Your task to perform on an android device: View the shopping cart on target.com. Add acer predator to the cart on target.com Image 0: 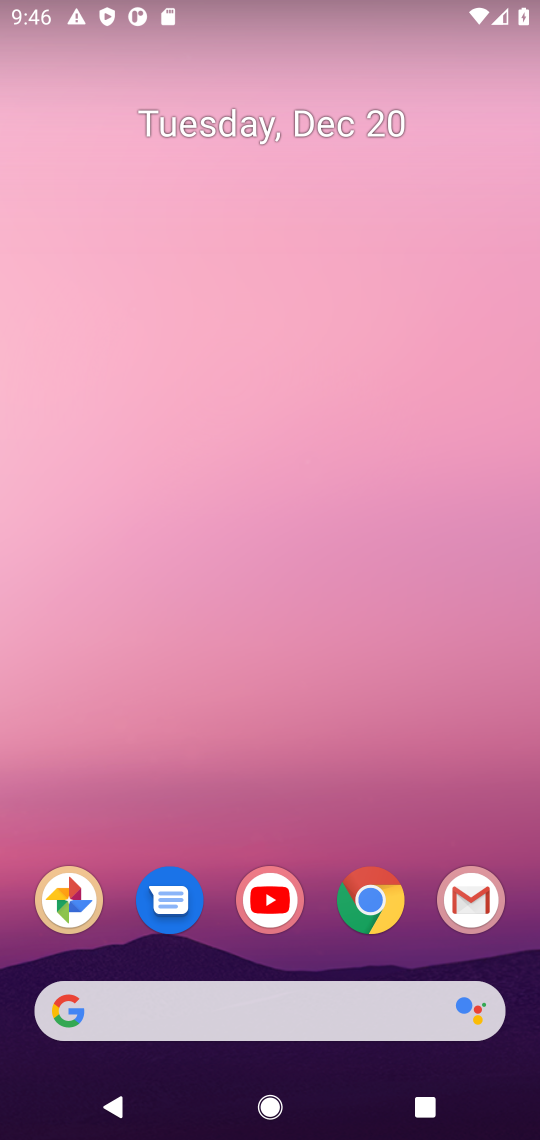
Step 0: click (373, 898)
Your task to perform on an android device: View the shopping cart on target.com. Add acer predator to the cart on target.com Image 1: 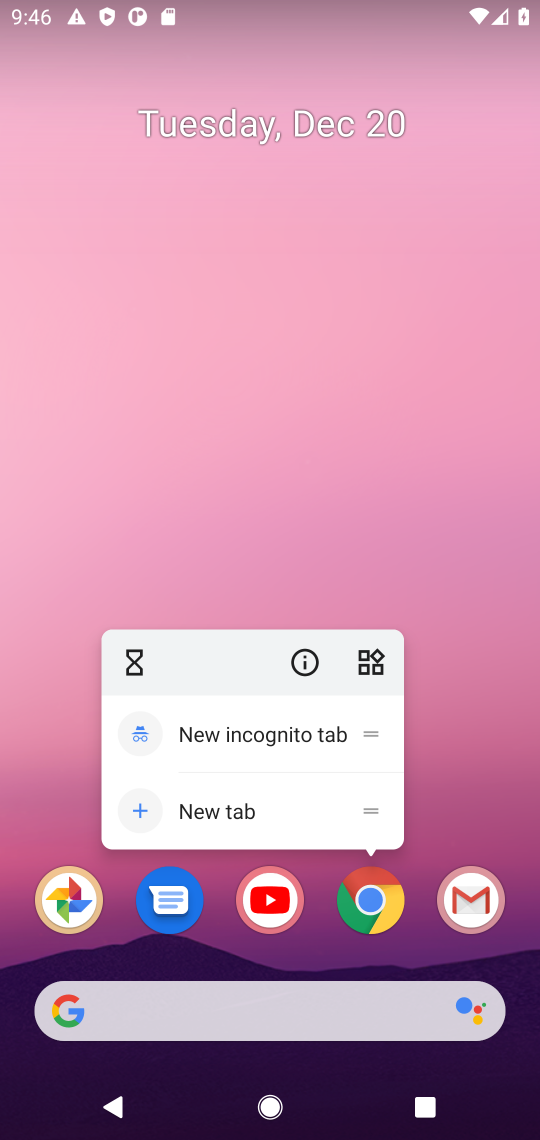
Step 1: click (373, 898)
Your task to perform on an android device: View the shopping cart on target.com. Add acer predator to the cart on target.com Image 2: 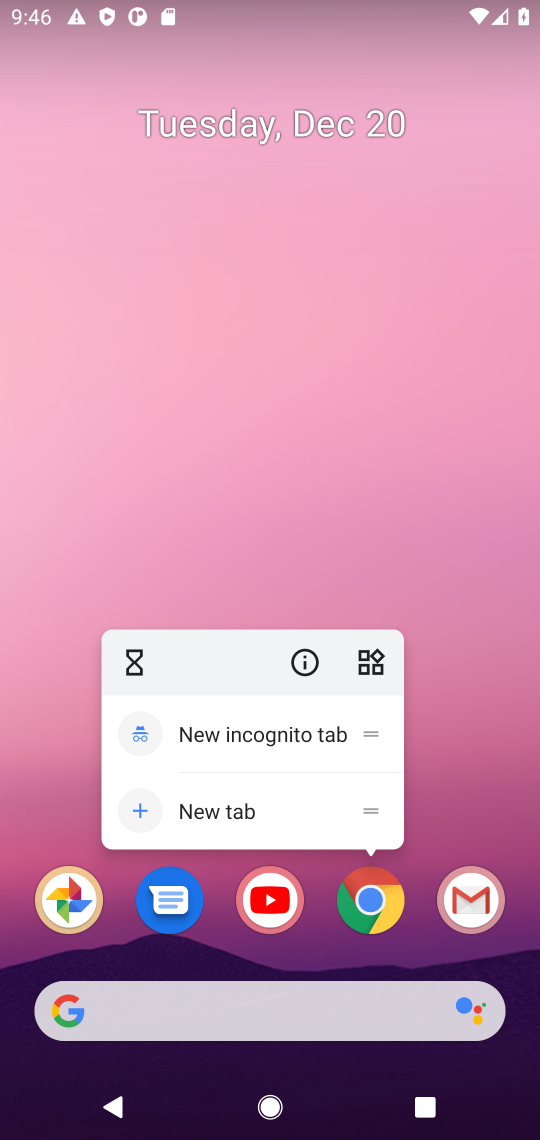
Step 2: click (373, 907)
Your task to perform on an android device: View the shopping cart on target.com. Add acer predator to the cart on target.com Image 3: 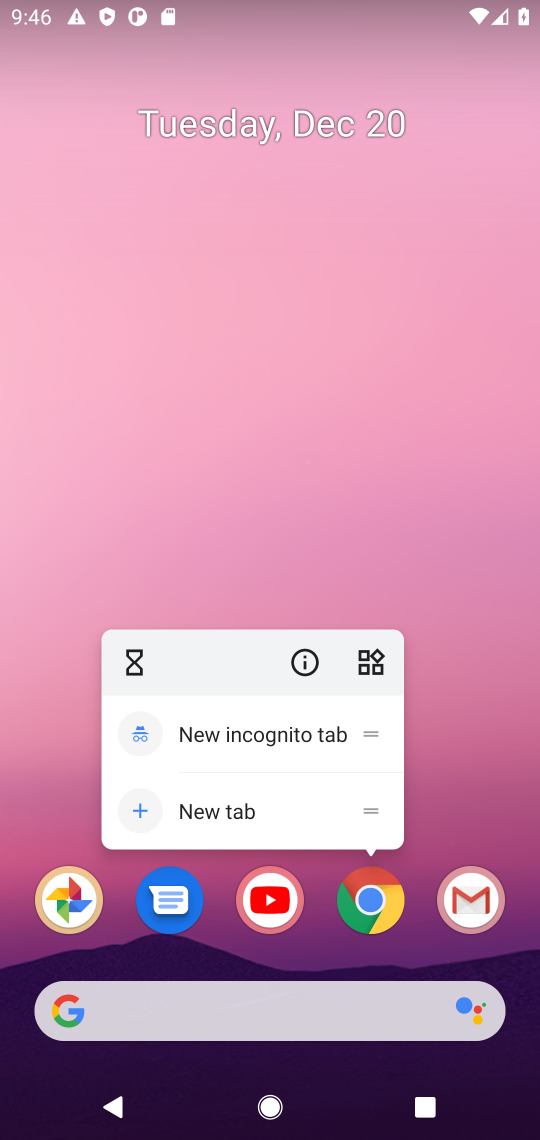
Step 3: click (373, 907)
Your task to perform on an android device: View the shopping cart on target.com. Add acer predator to the cart on target.com Image 4: 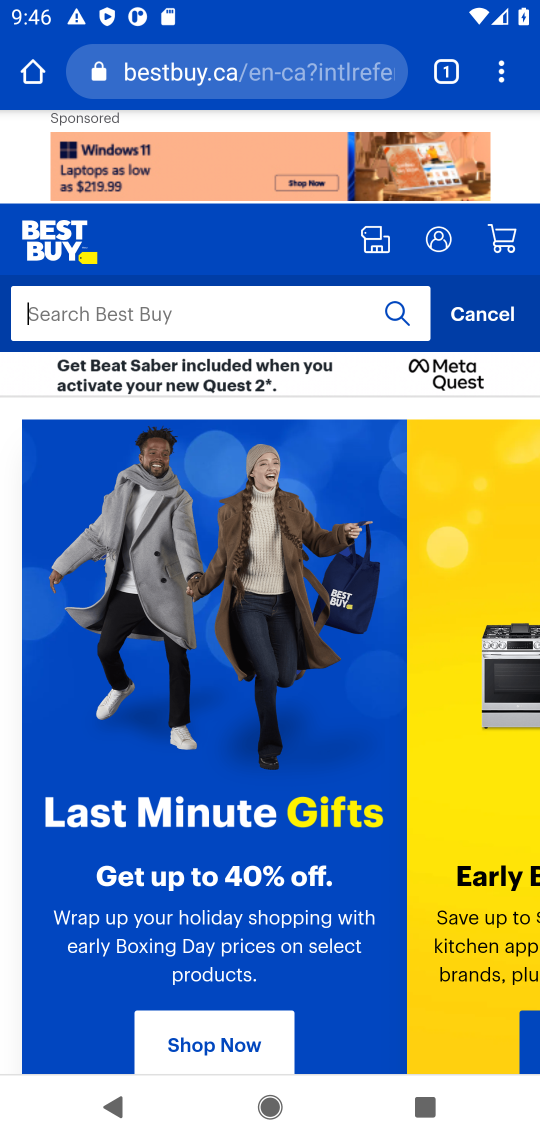
Step 4: click (235, 62)
Your task to perform on an android device: View the shopping cart on target.com. Add acer predator to the cart on target.com Image 5: 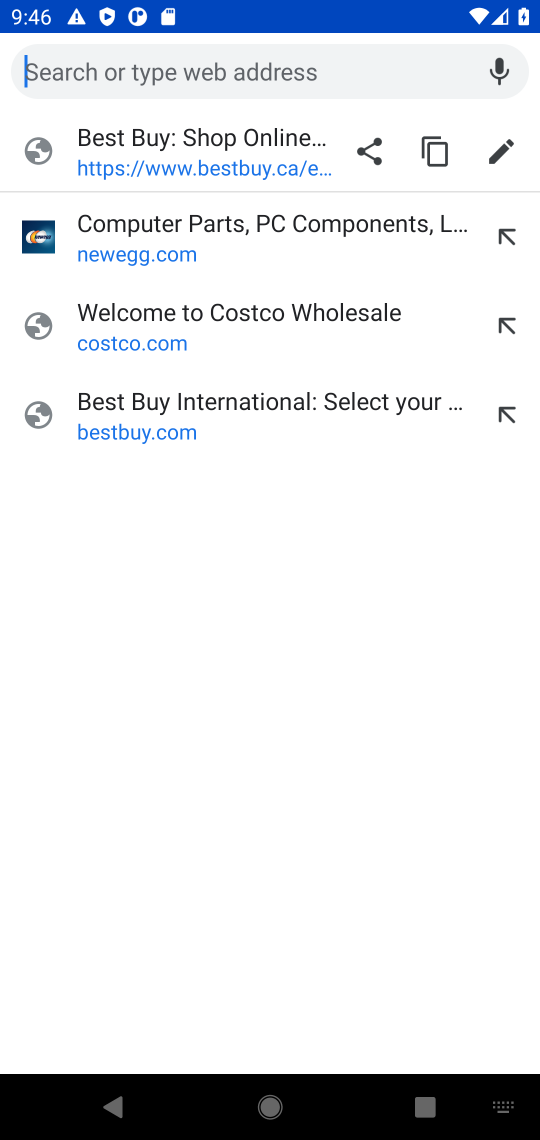
Step 5: type "target.com"
Your task to perform on an android device: View the shopping cart on target.com. Add acer predator to the cart on target.com Image 6: 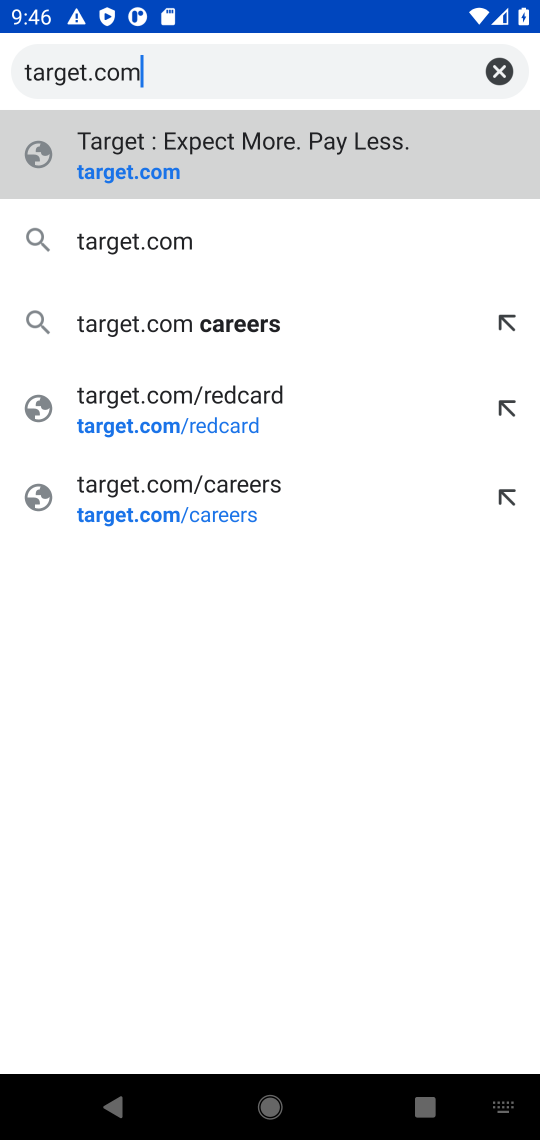
Step 6: click (141, 173)
Your task to perform on an android device: View the shopping cart on target.com. Add acer predator to the cart on target.com Image 7: 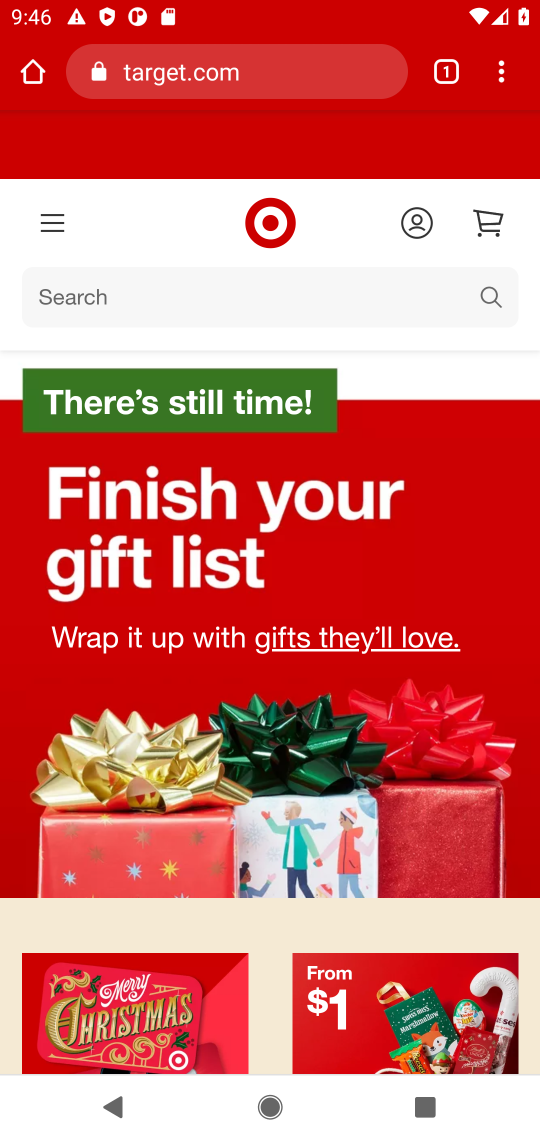
Step 7: click (483, 226)
Your task to perform on an android device: View the shopping cart on target.com. Add acer predator to the cart on target.com Image 8: 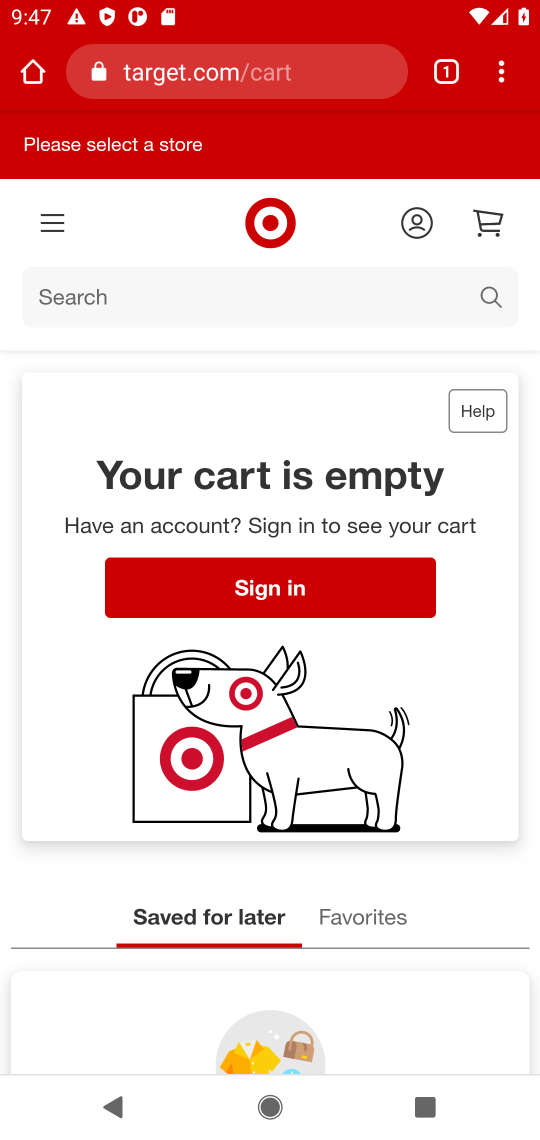
Step 8: click (79, 306)
Your task to perform on an android device: View the shopping cart on target.com. Add acer predator to the cart on target.com Image 9: 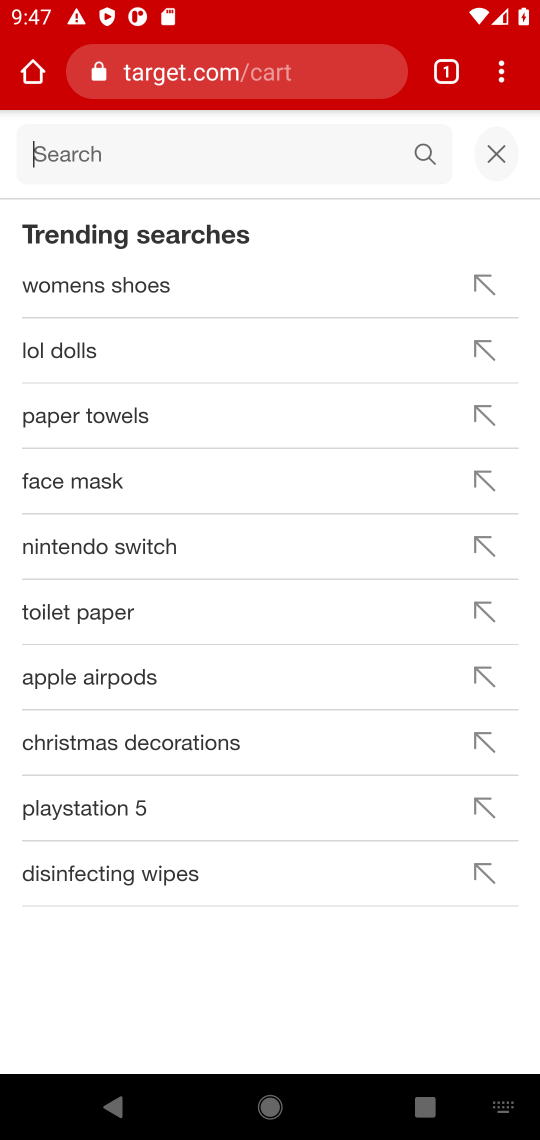
Step 9: type "acer predator"
Your task to perform on an android device: View the shopping cart on target.com. Add acer predator to the cart on target.com Image 10: 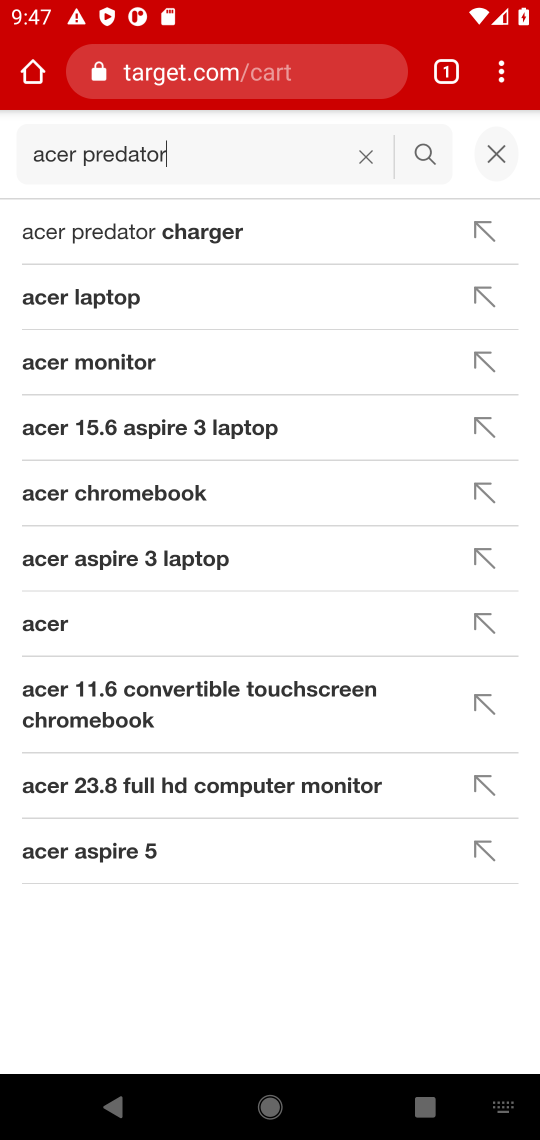
Step 10: click (418, 155)
Your task to perform on an android device: View the shopping cart on target.com. Add acer predator to the cart on target.com Image 11: 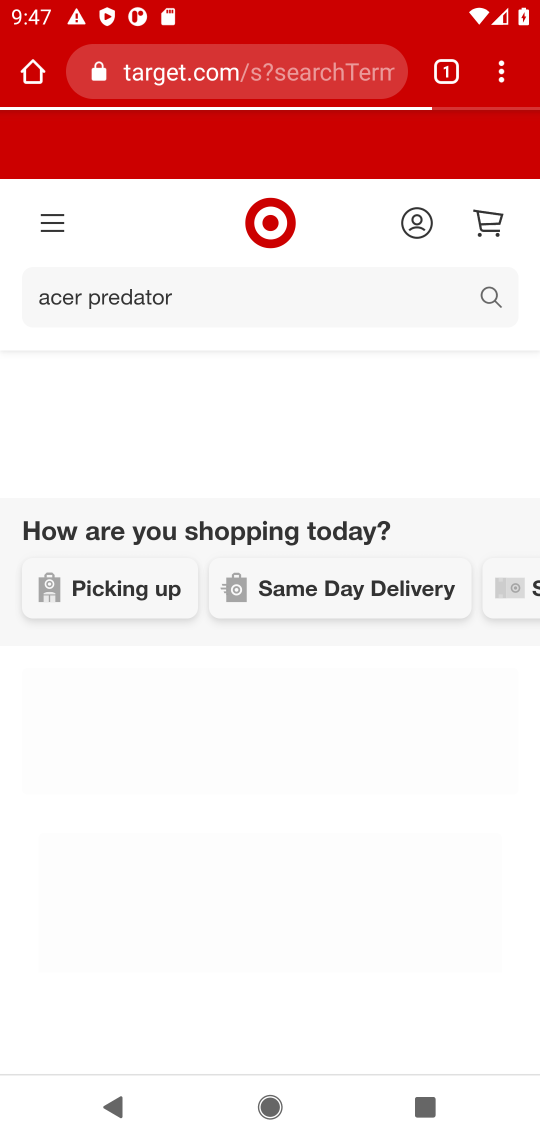
Step 11: drag from (223, 747) to (230, 431)
Your task to perform on an android device: View the shopping cart on target.com. Add acer predator to the cart on target.com Image 12: 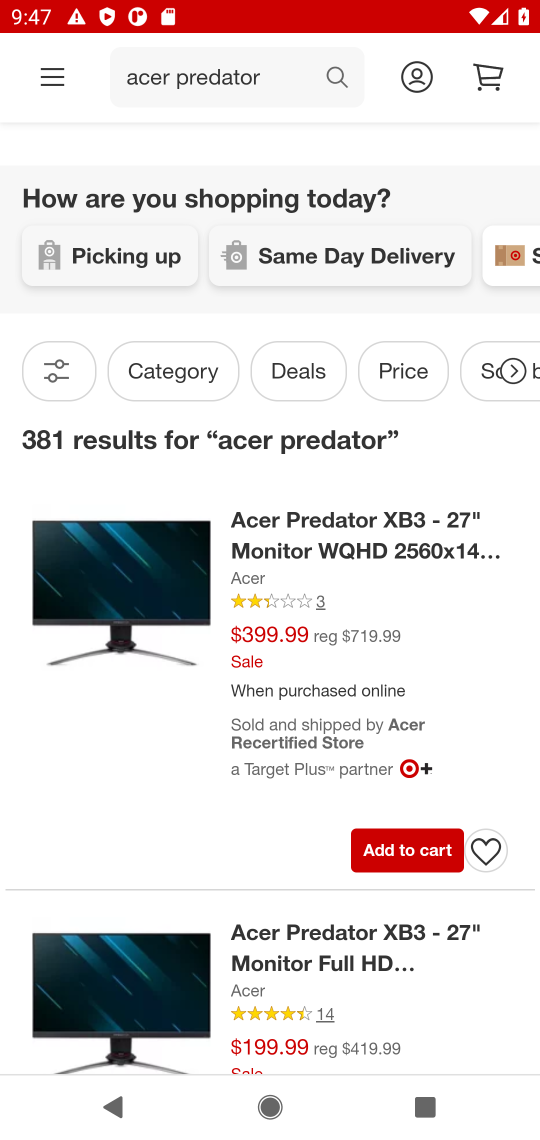
Step 12: click (294, 542)
Your task to perform on an android device: View the shopping cart on target.com. Add acer predator to the cart on target.com Image 13: 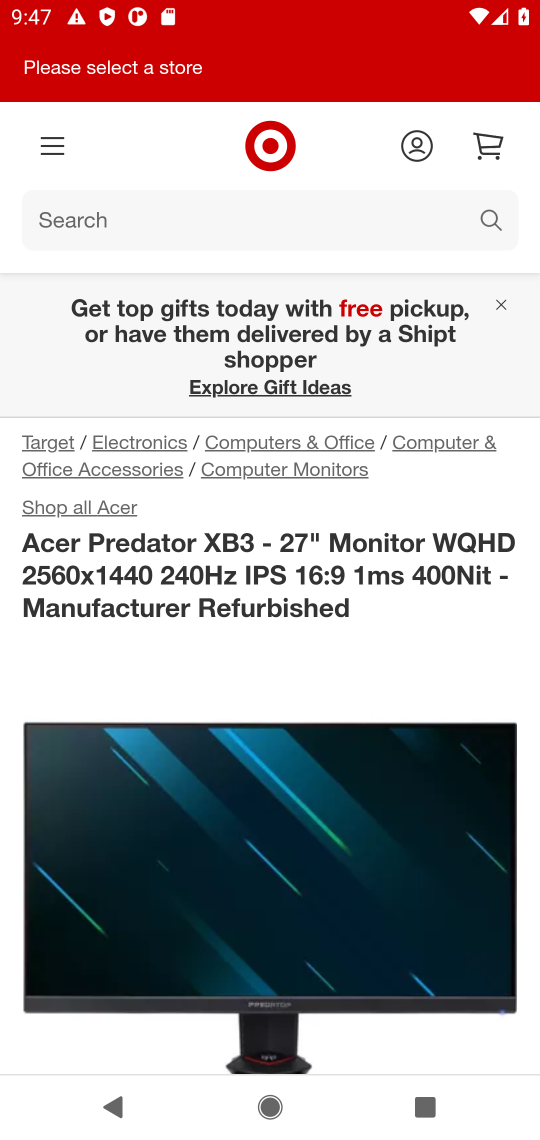
Step 13: drag from (313, 818) to (320, 360)
Your task to perform on an android device: View the shopping cart on target.com. Add acer predator to the cart on target.com Image 14: 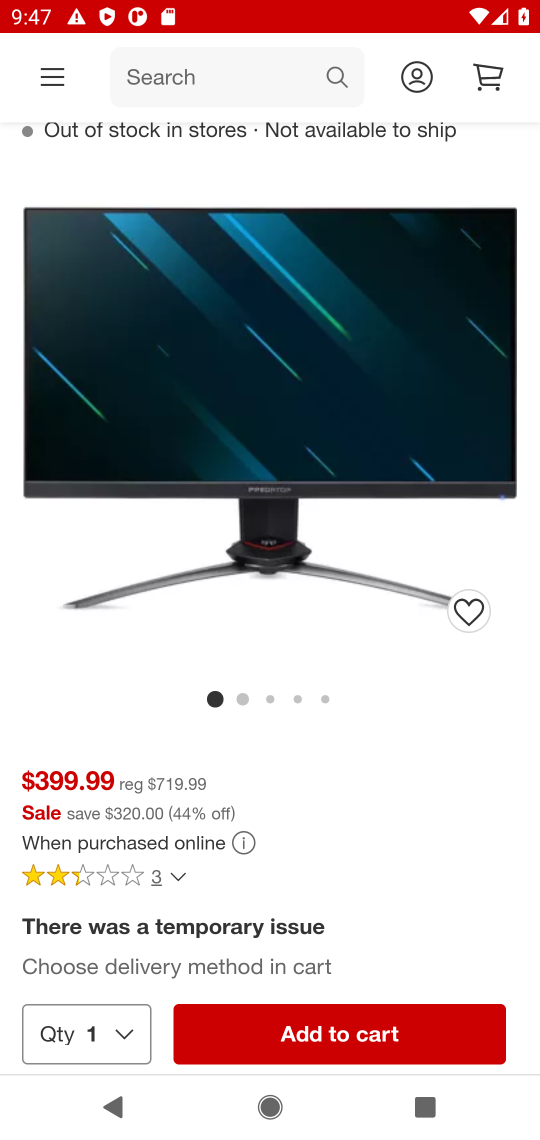
Step 14: drag from (296, 766) to (296, 376)
Your task to perform on an android device: View the shopping cart on target.com. Add acer predator to the cart on target.com Image 15: 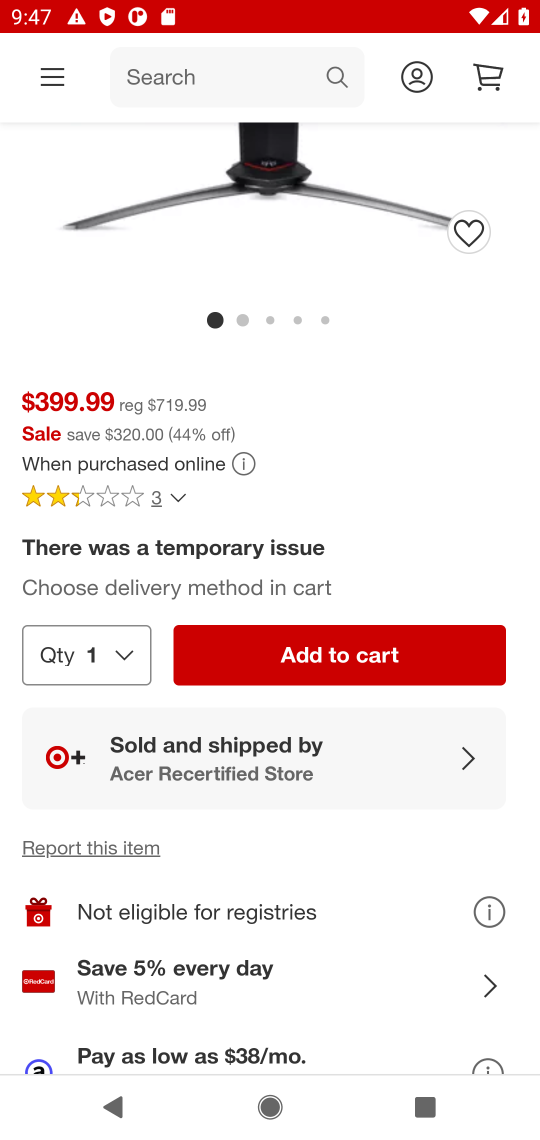
Step 15: click (350, 658)
Your task to perform on an android device: View the shopping cart on target.com. Add acer predator to the cart on target.com Image 16: 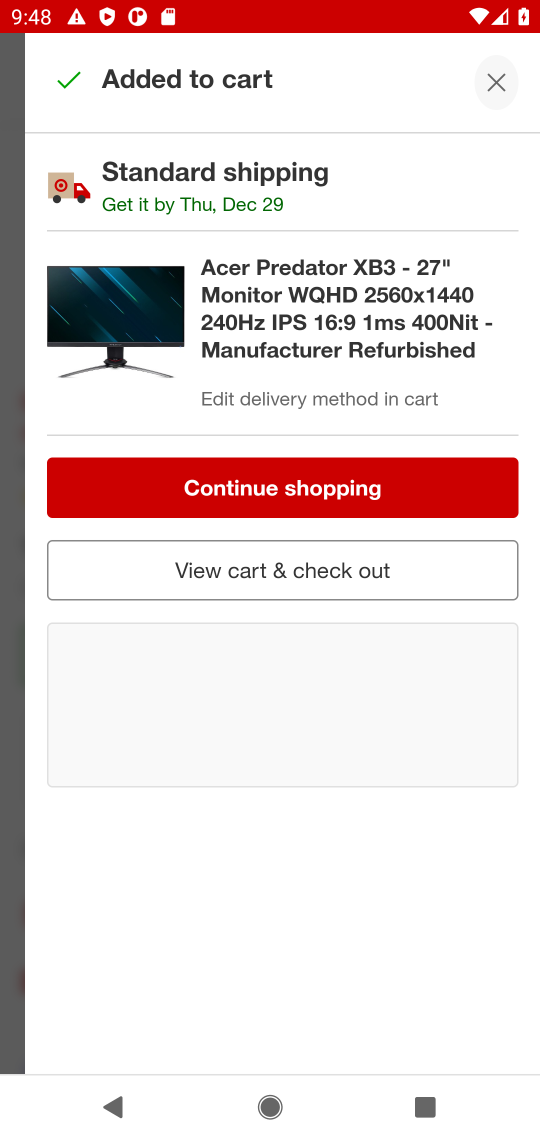
Step 16: task complete